Your task to perform on an android device: Open Wikipedia Image 0: 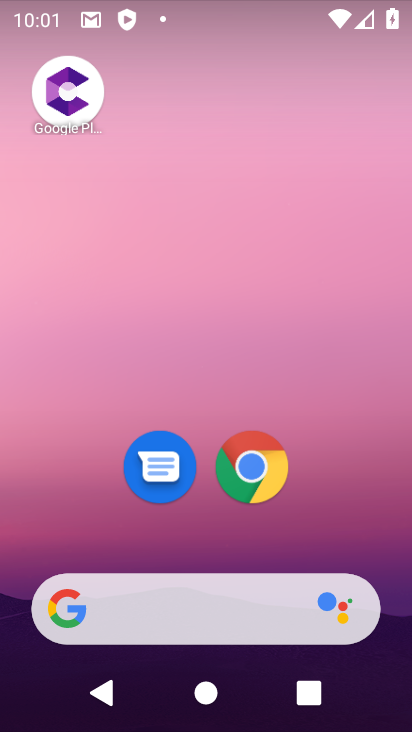
Step 0: drag from (254, 527) to (353, 116)
Your task to perform on an android device: Open Wikipedia Image 1: 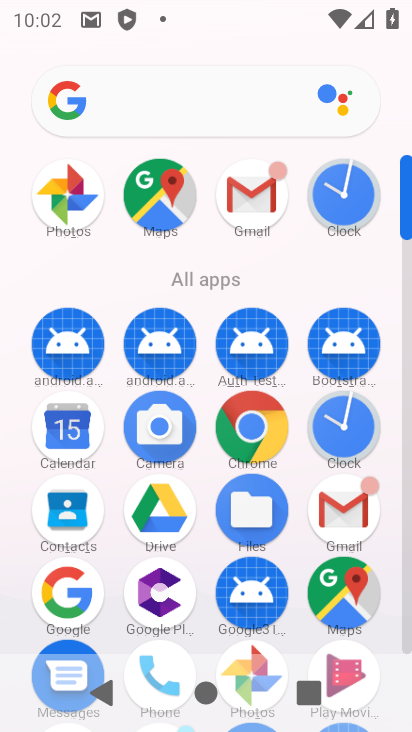
Step 1: click (244, 107)
Your task to perform on an android device: Open Wikipedia Image 2: 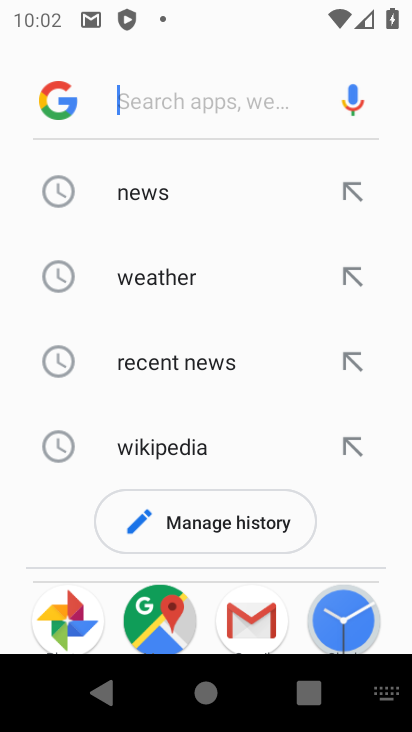
Step 2: type "wikipedia.com"
Your task to perform on an android device: Open Wikipedia Image 3: 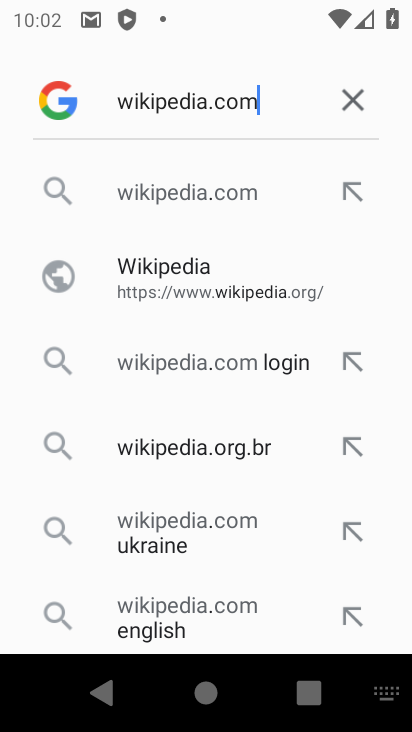
Step 3: click (155, 206)
Your task to perform on an android device: Open Wikipedia Image 4: 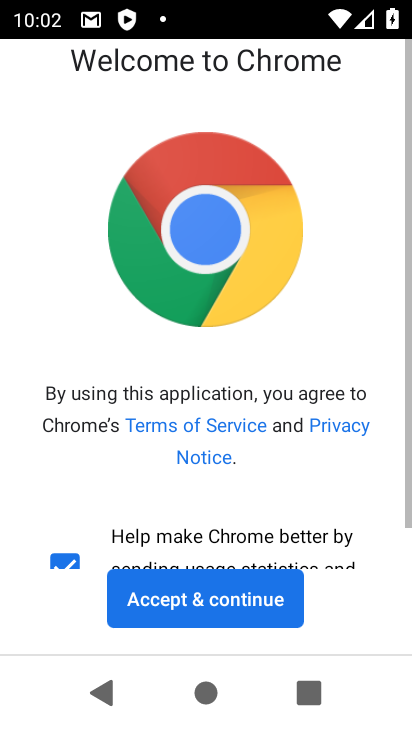
Step 4: drag from (226, 604) to (316, 96)
Your task to perform on an android device: Open Wikipedia Image 5: 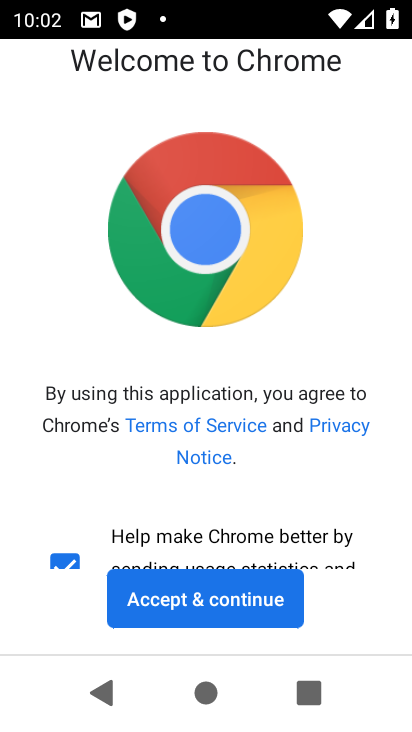
Step 5: click (203, 608)
Your task to perform on an android device: Open Wikipedia Image 6: 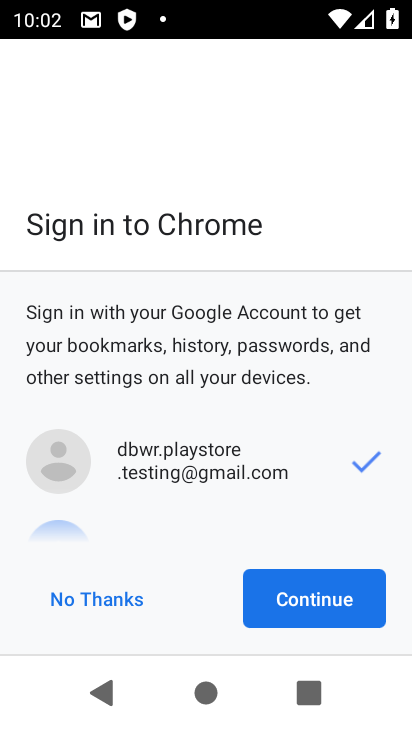
Step 6: click (283, 616)
Your task to perform on an android device: Open Wikipedia Image 7: 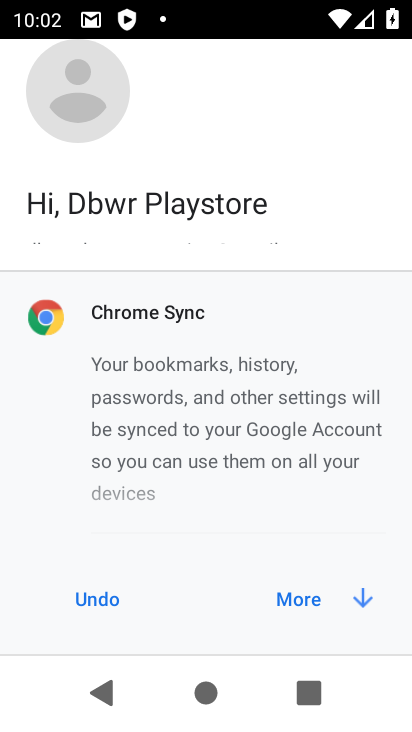
Step 7: click (281, 614)
Your task to perform on an android device: Open Wikipedia Image 8: 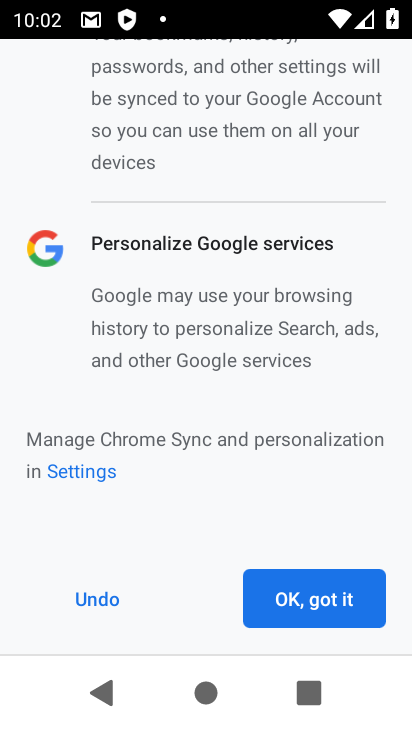
Step 8: click (282, 614)
Your task to perform on an android device: Open Wikipedia Image 9: 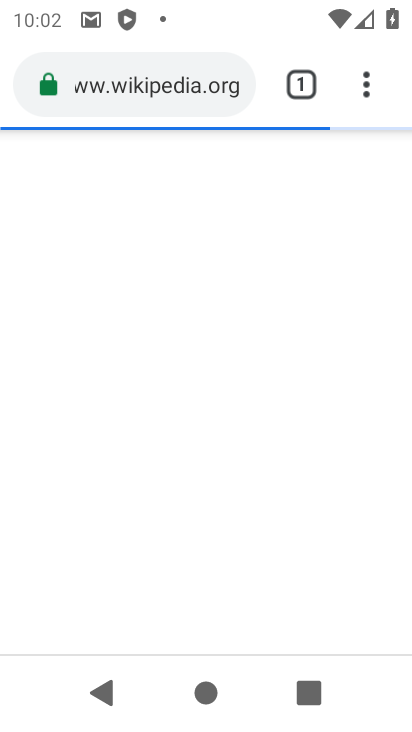
Step 9: task complete